Your task to perform on an android device: Show the shopping cart on walmart.com. Search for alienware area 51 on walmart.com, select the first entry, add it to the cart, then select checkout. Image 0: 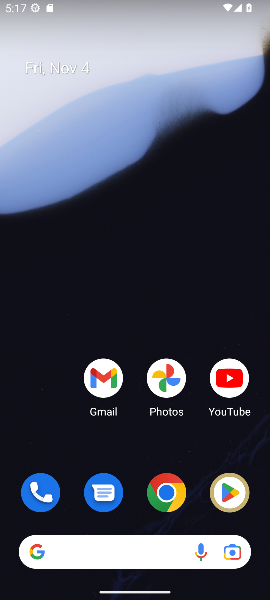
Step 0: drag from (186, 450) to (175, 70)
Your task to perform on an android device: Show the shopping cart on walmart.com. Search for alienware area 51 on walmart.com, select the first entry, add it to the cart, then select checkout. Image 1: 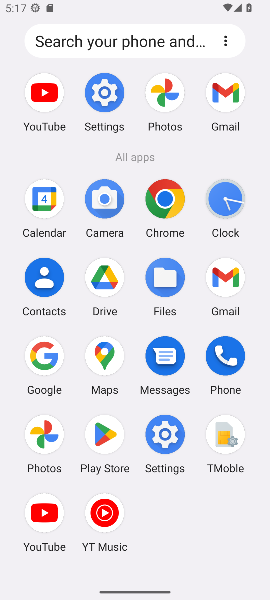
Step 1: click (168, 204)
Your task to perform on an android device: Show the shopping cart on walmart.com. Search for alienware area 51 on walmart.com, select the first entry, add it to the cart, then select checkout. Image 2: 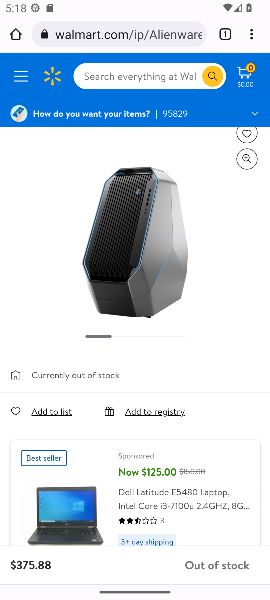
Step 2: task complete